Your task to perform on an android device: install app "Gboard" Image 0: 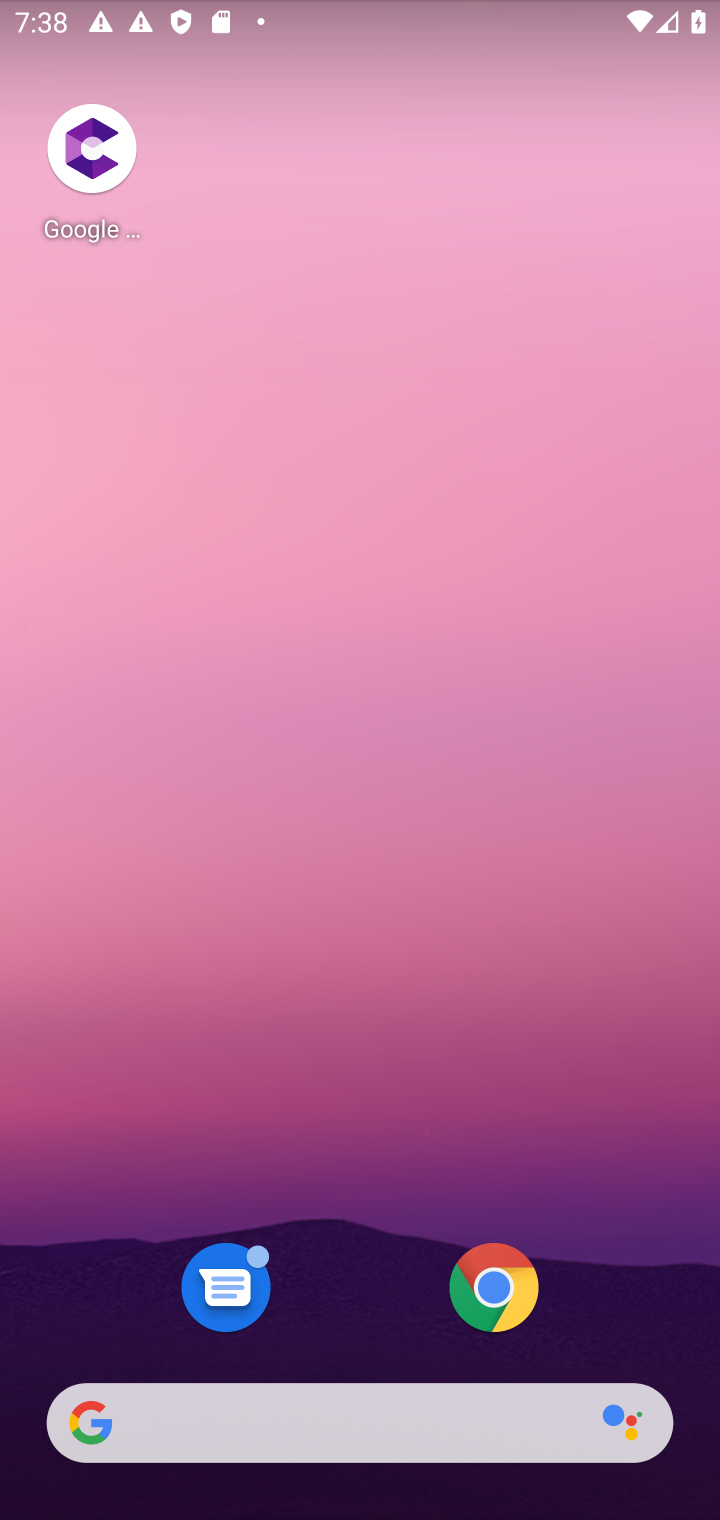
Step 0: drag from (246, 1484) to (186, 551)
Your task to perform on an android device: install app "Gboard" Image 1: 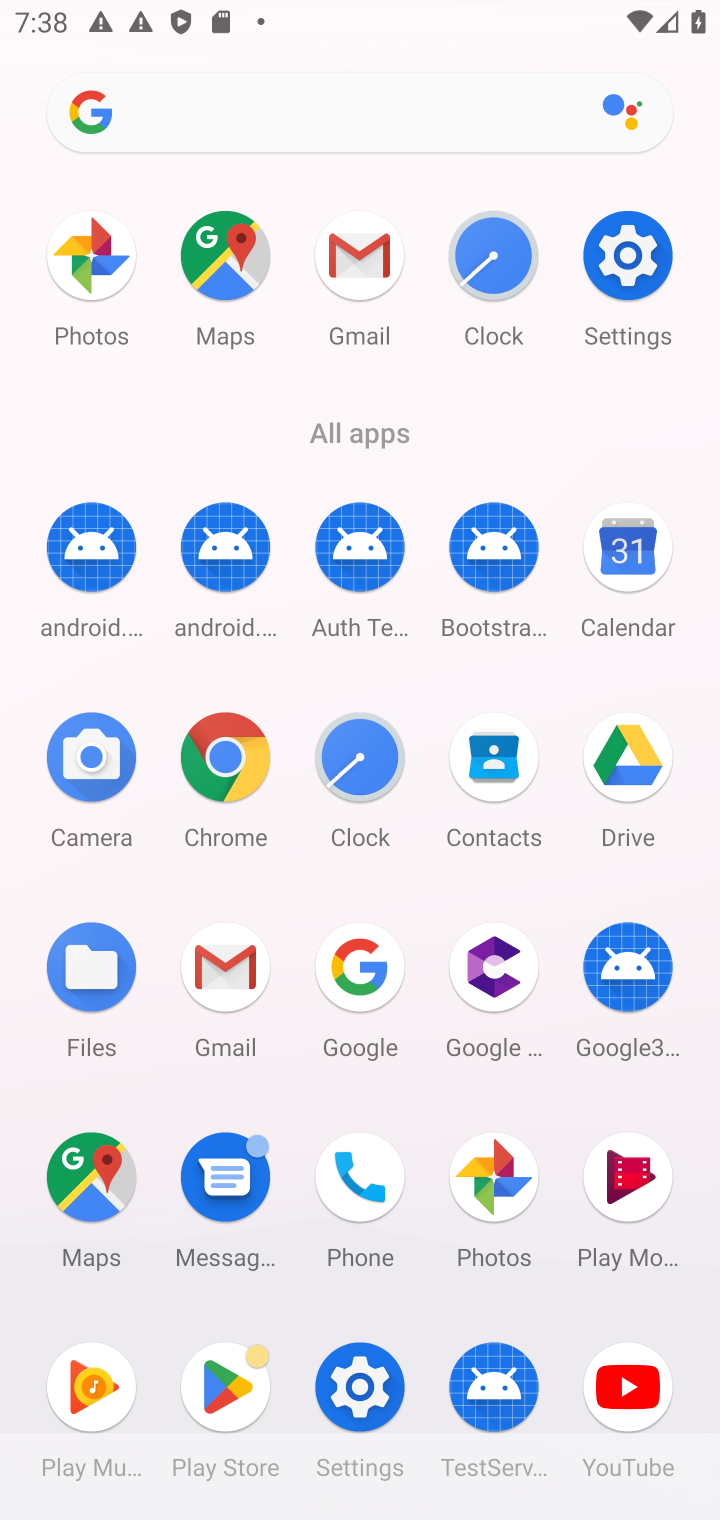
Step 1: click (243, 1400)
Your task to perform on an android device: install app "Gboard" Image 2: 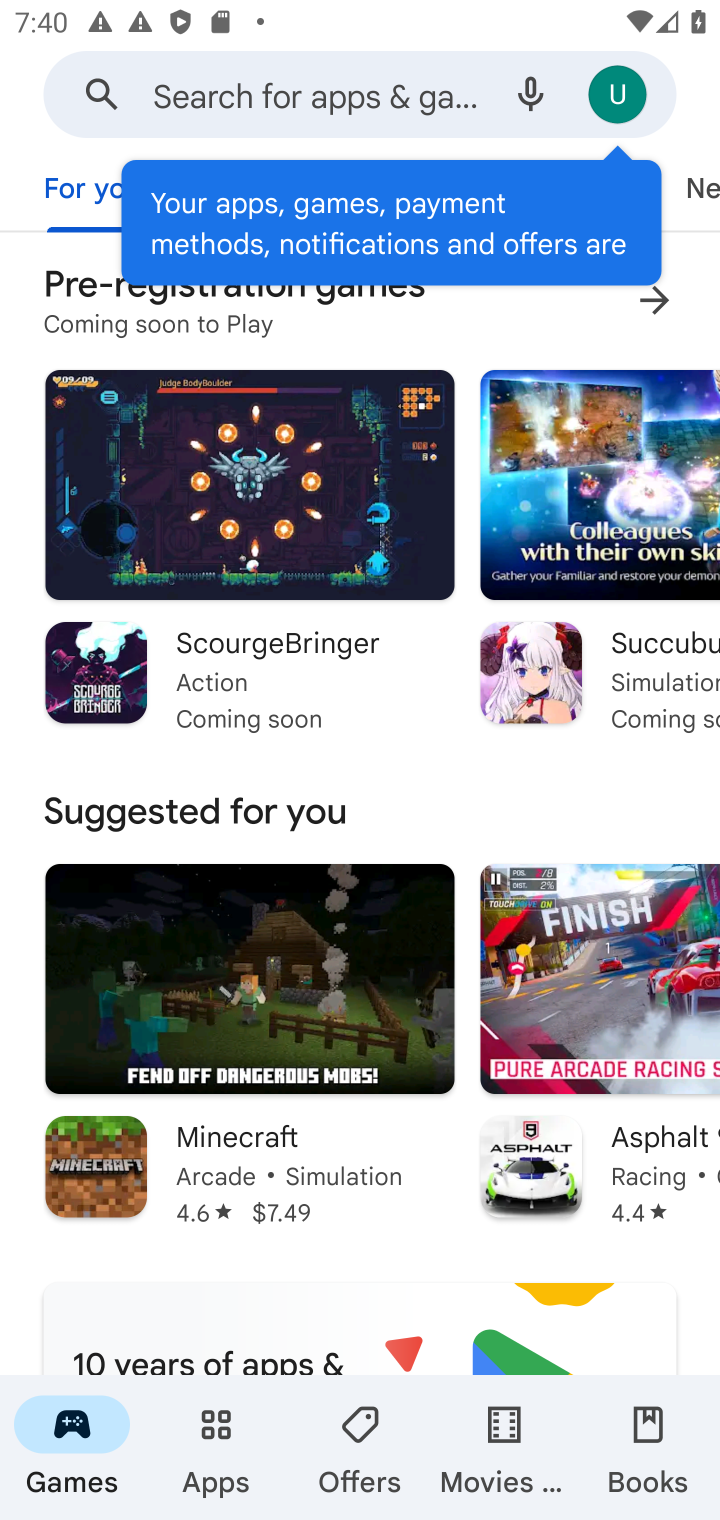
Step 2: click (398, 109)
Your task to perform on an android device: install app "Gboard" Image 3: 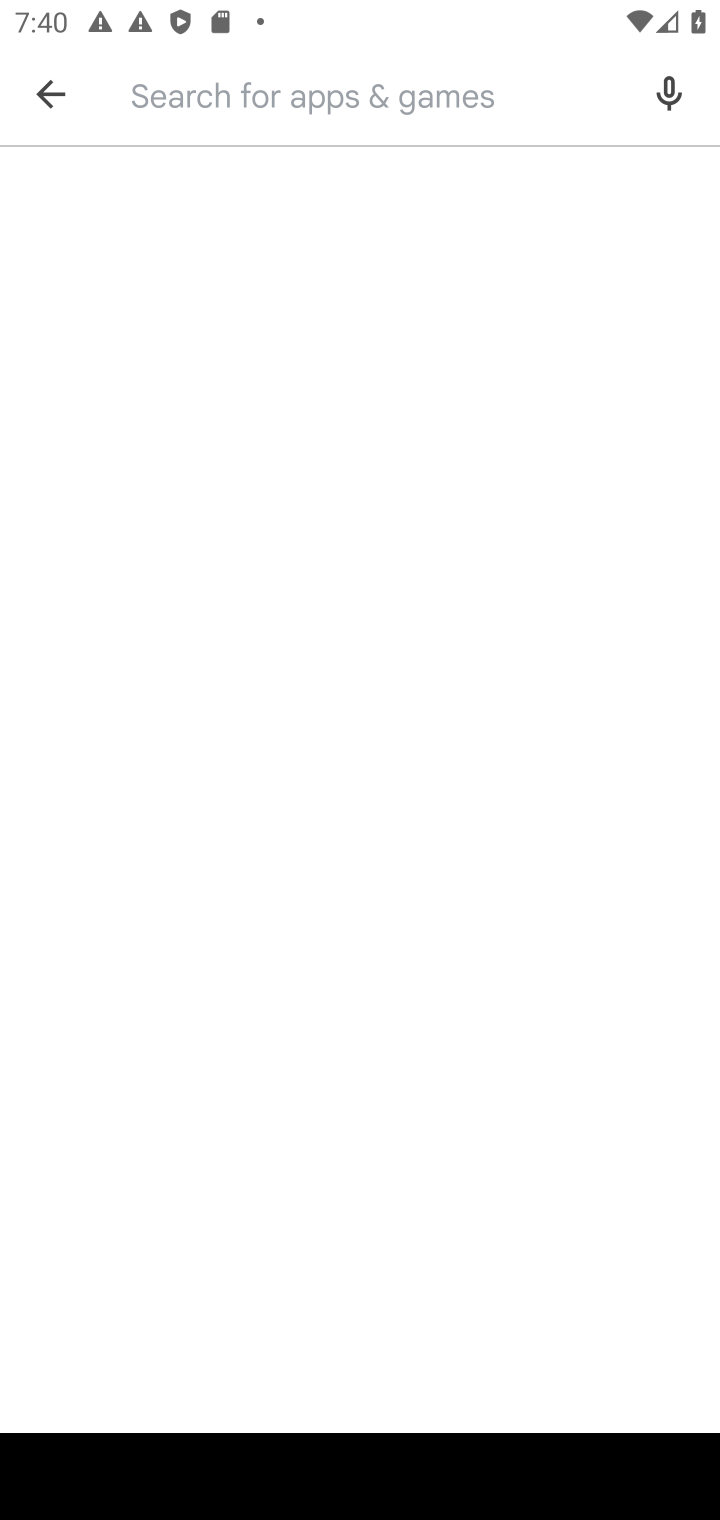
Step 3: type "Gboard"
Your task to perform on an android device: install app "Gboard" Image 4: 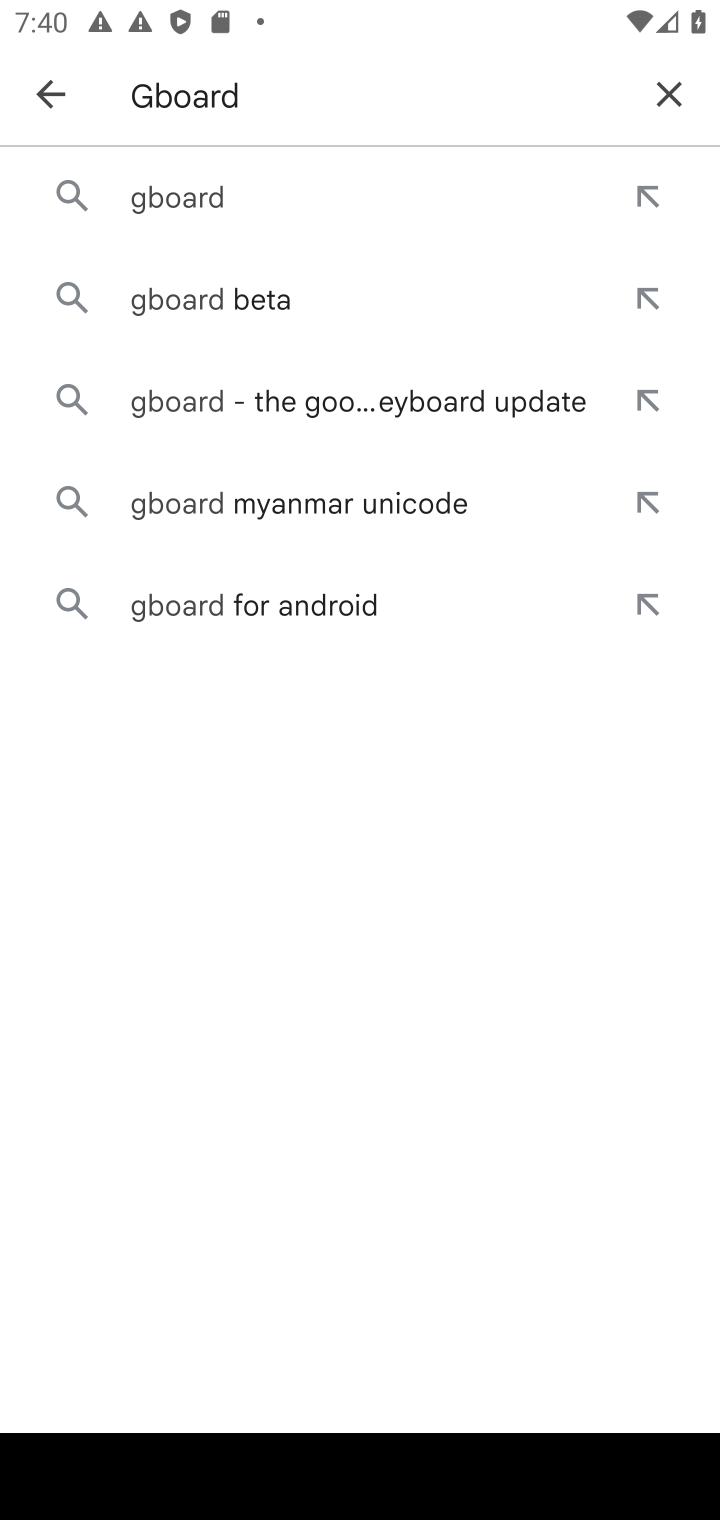
Step 4: click (297, 223)
Your task to perform on an android device: install app "Gboard" Image 5: 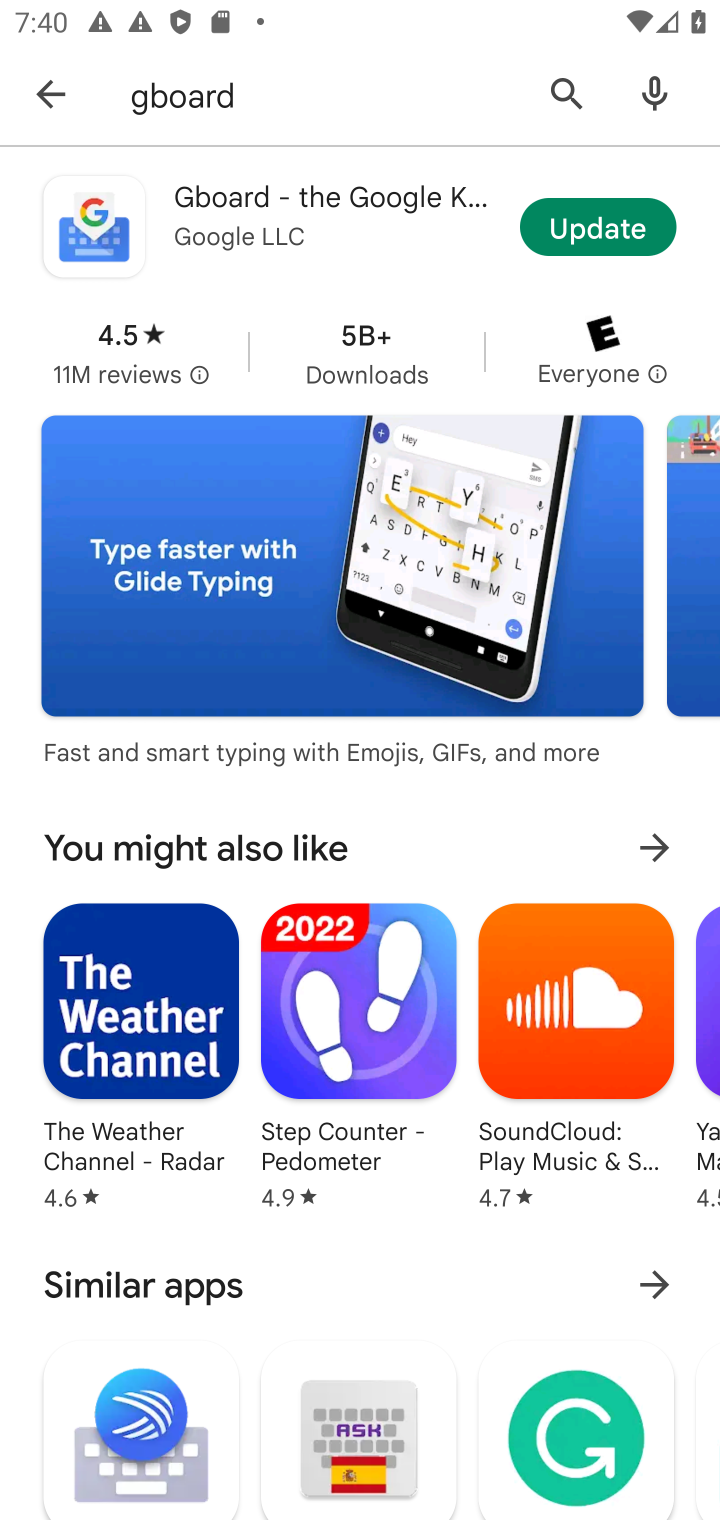
Step 5: task complete